Your task to perform on an android device: Search for hotels in Paris Image 0: 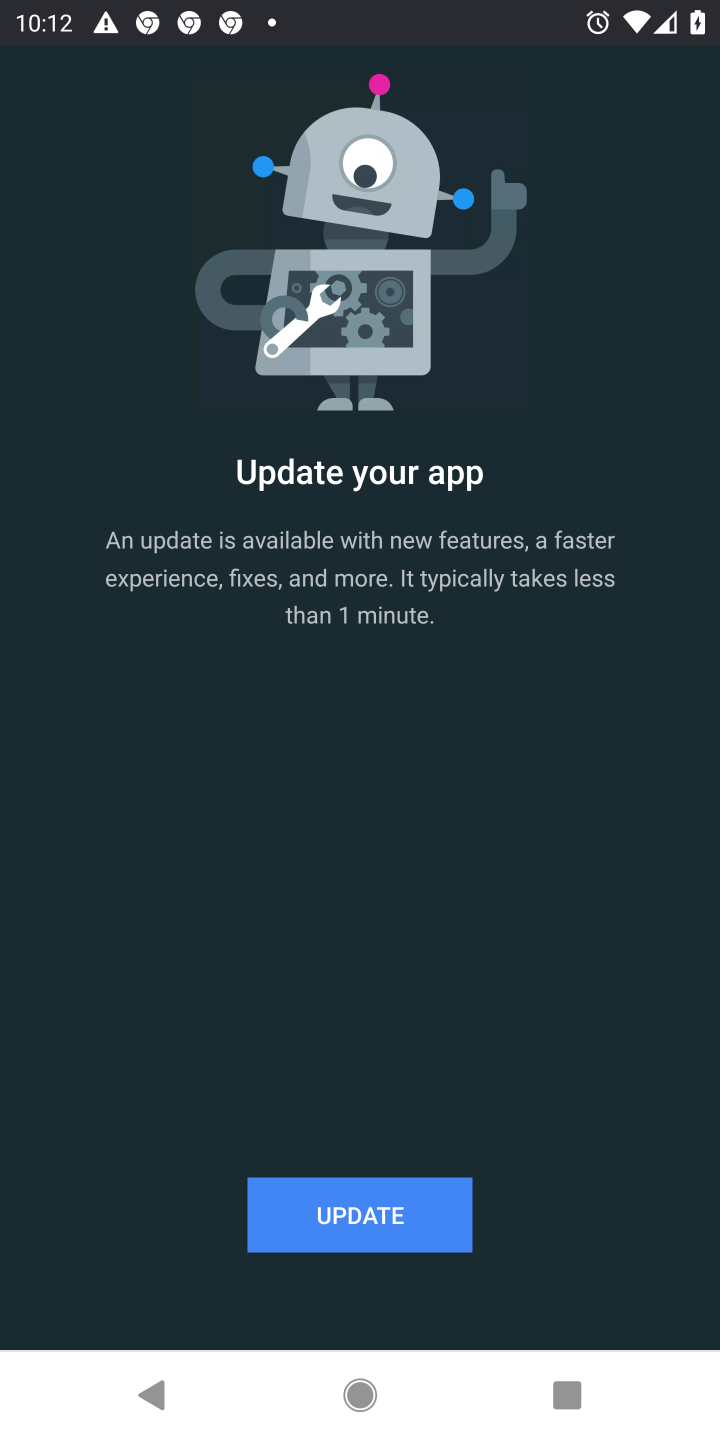
Step 0: press home button
Your task to perform on an android device: Search for hotels in Paris Image 1: 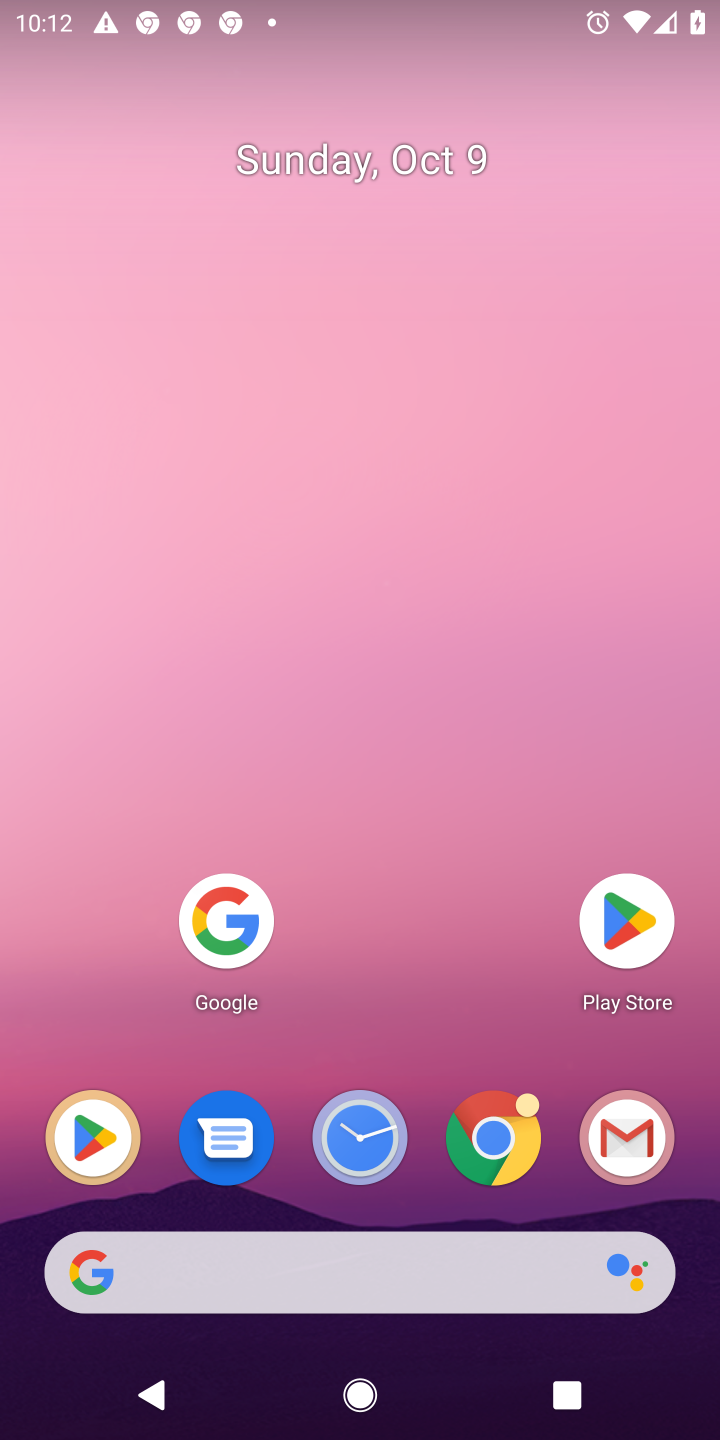
Step 1: click (218, 928)
Your task to perform on an android device: Search for hotels in Paris Image 2: 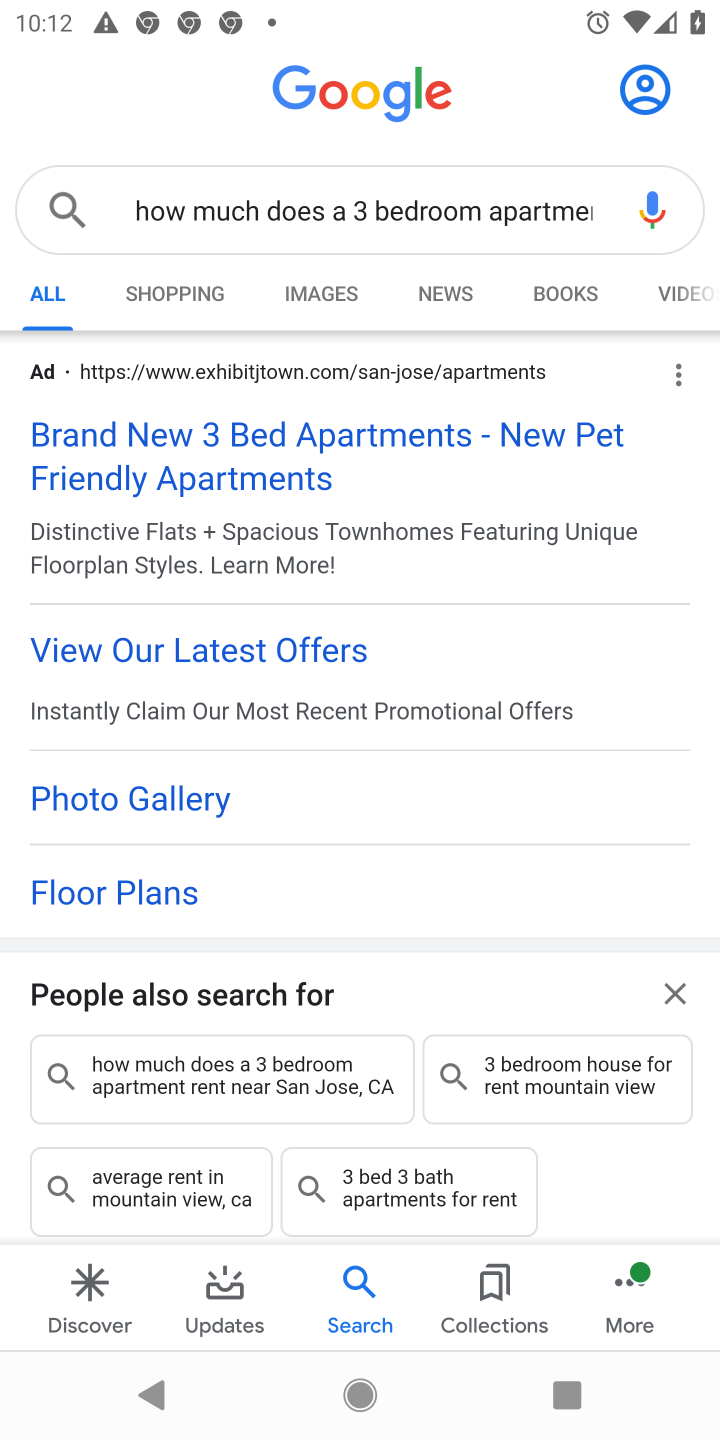
Step 2: click (337, 202)
Your task to perform on an android device: Search for hotels in Paris Image 3: 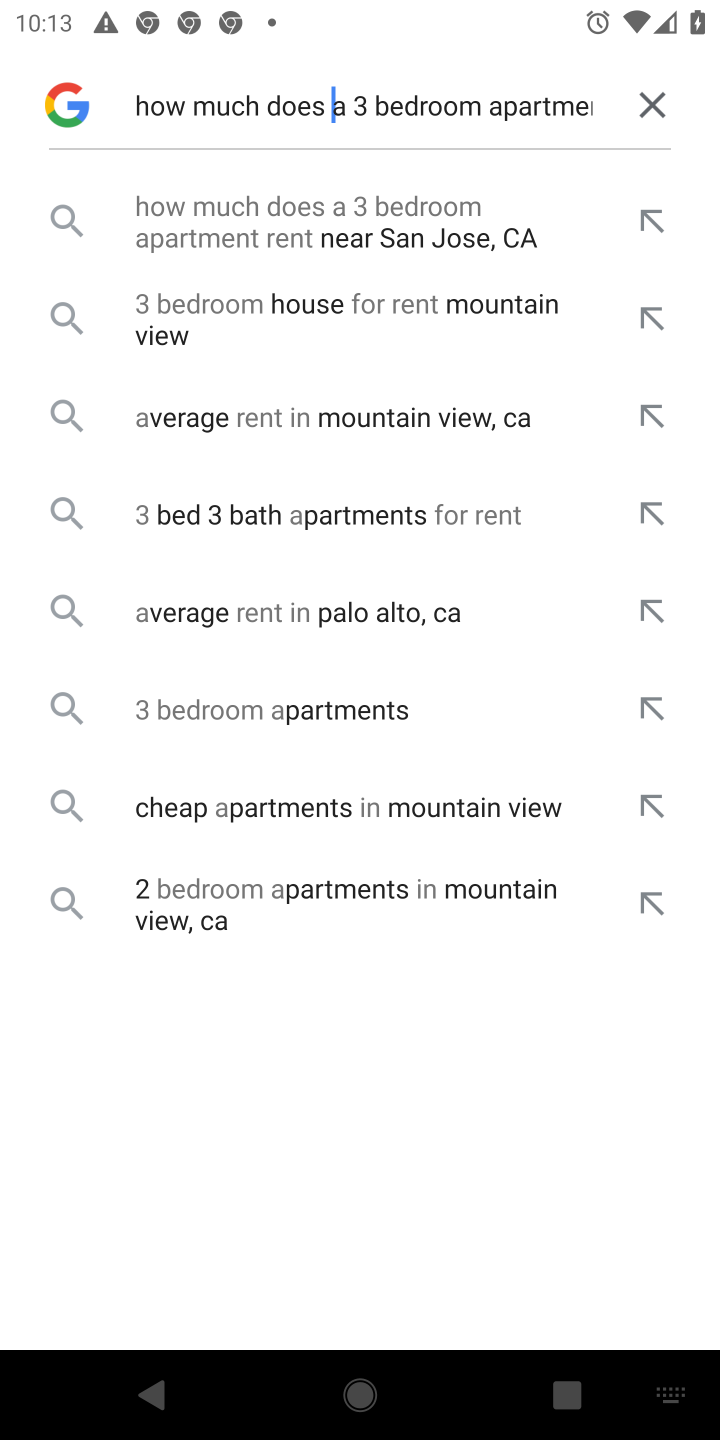
Step 3: click (661, 95)
Your task to perform on an android device: Search for hotels in Paris Image 4: 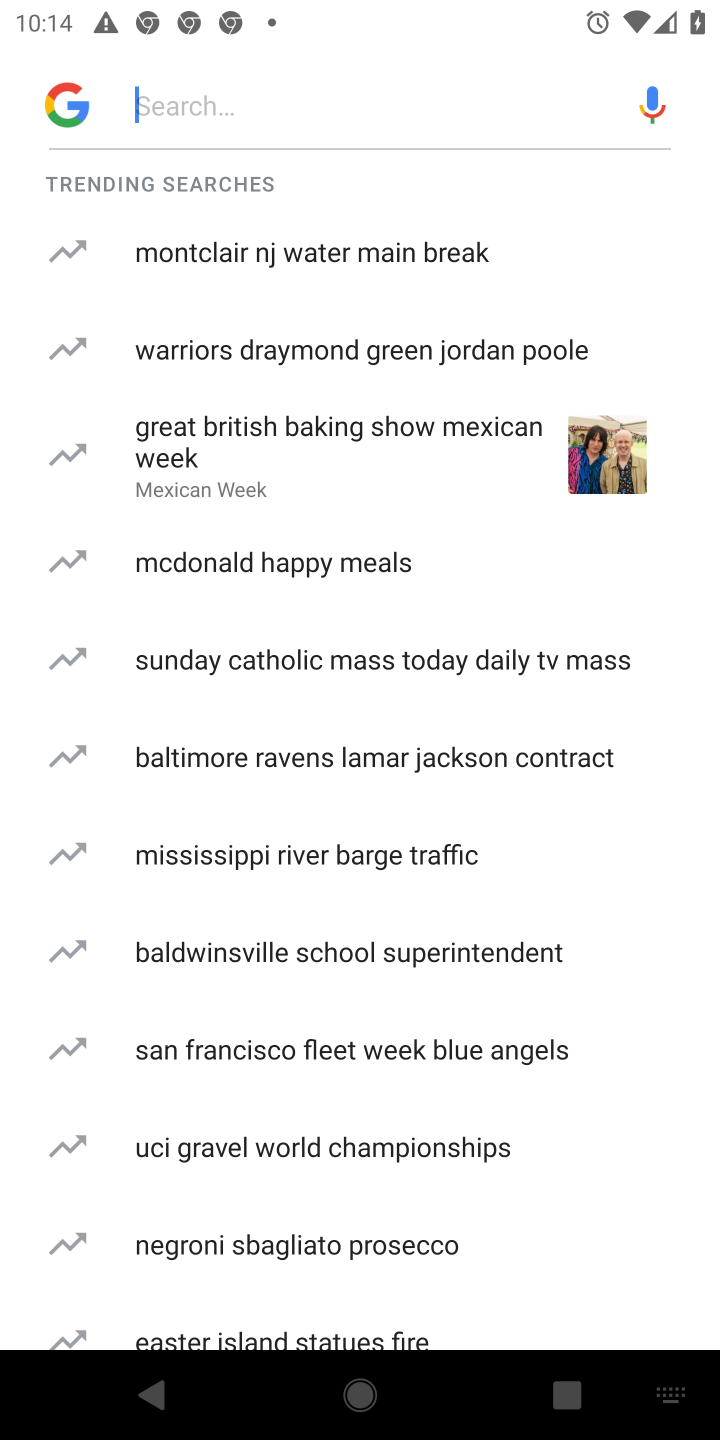
Step 4: click (197, 111)
Your task to perform on an android device: Search for hotels in Paris Image 5: 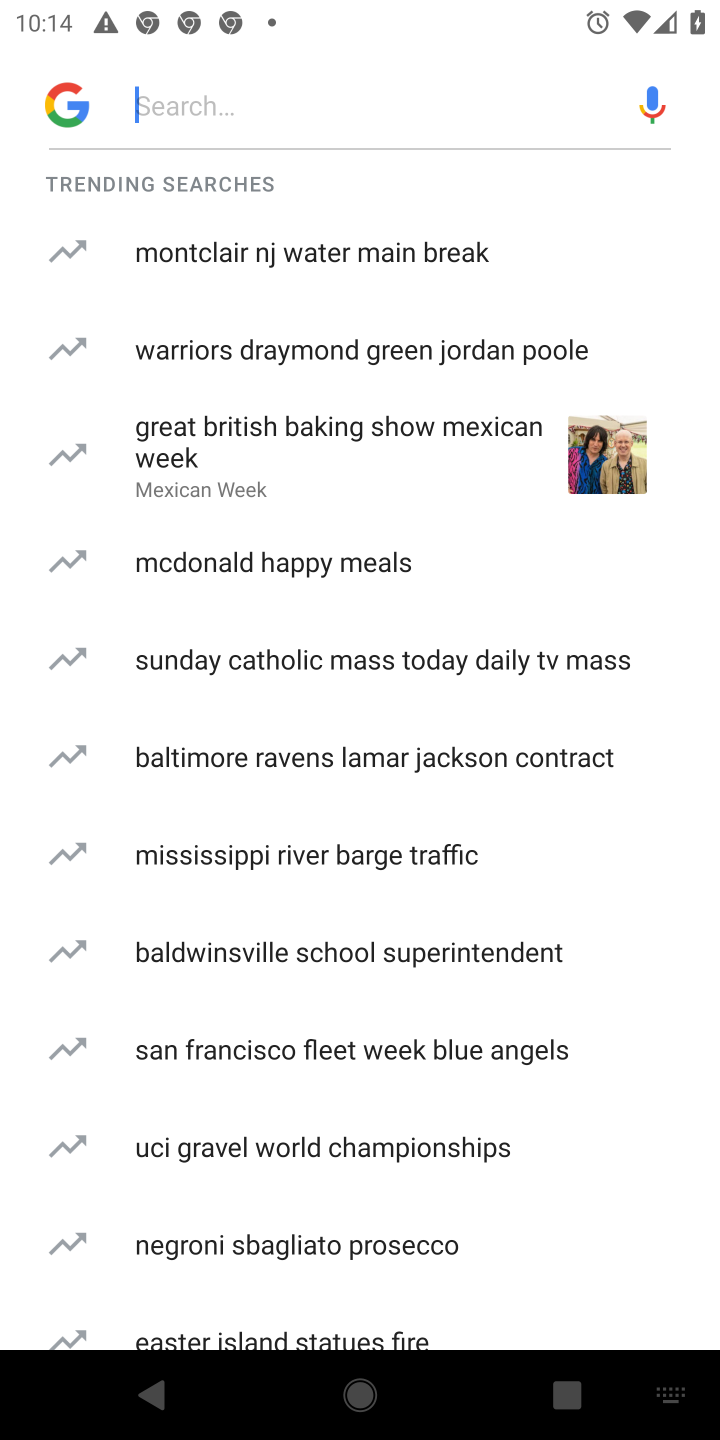
Step 5: type "Search for hotels in Paris "
Your task to perform on an android device: Search for hotels in Paris Image 6: 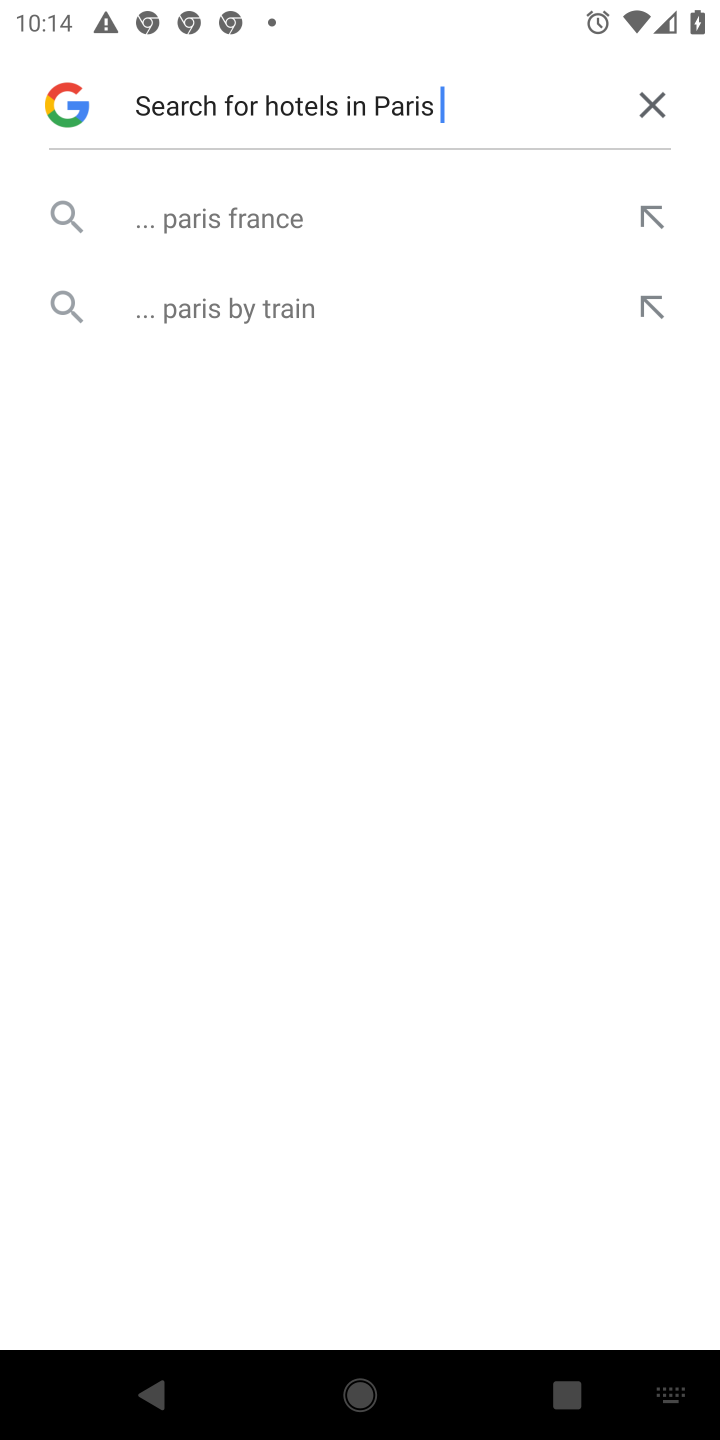
Step 6: click (193, 237)
Your task to perform on an android device: Search for hotels in Paris Image 7: 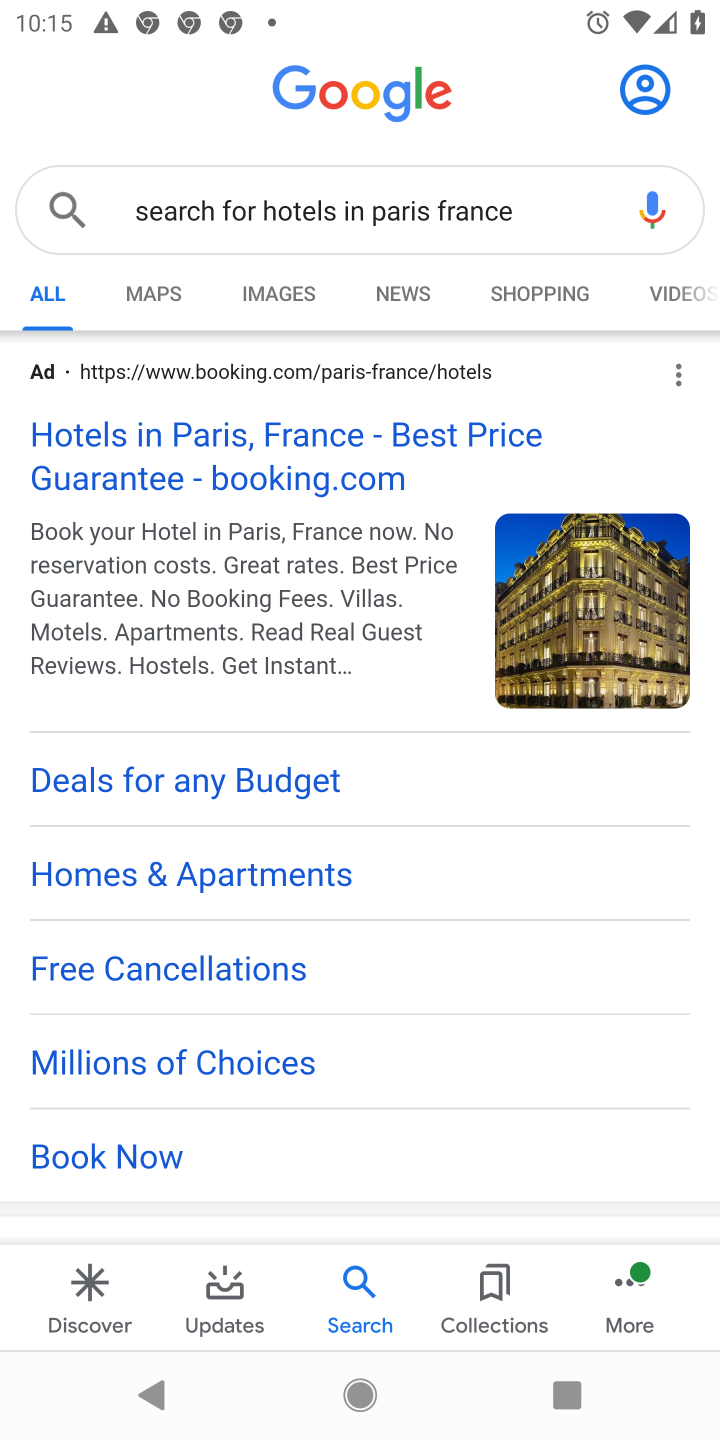
Step 7: click (349, 430)
Your task to perform on an android device: Search for hotels in Paris Image 8: 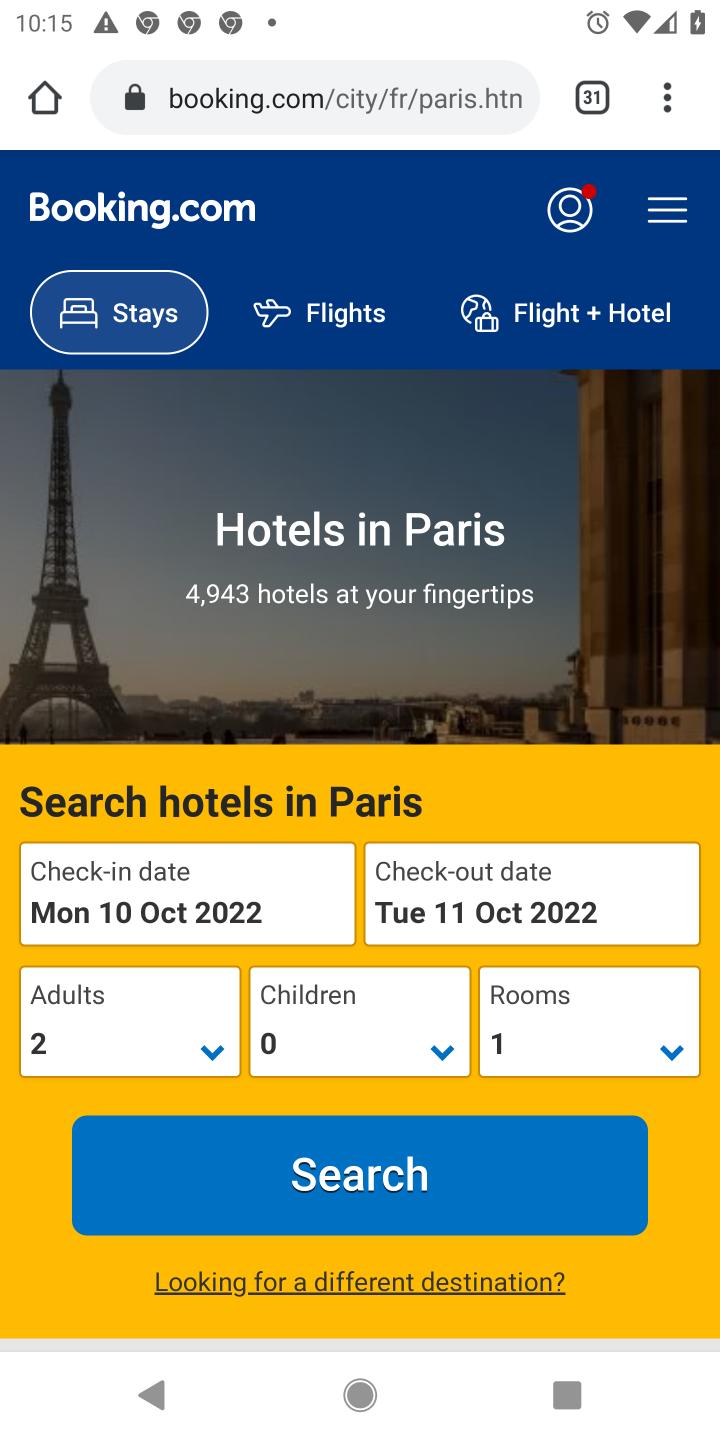
Step 8: click (406, 1184)
Your task to perform on an android device: Search for hotels in Paris Image 9: 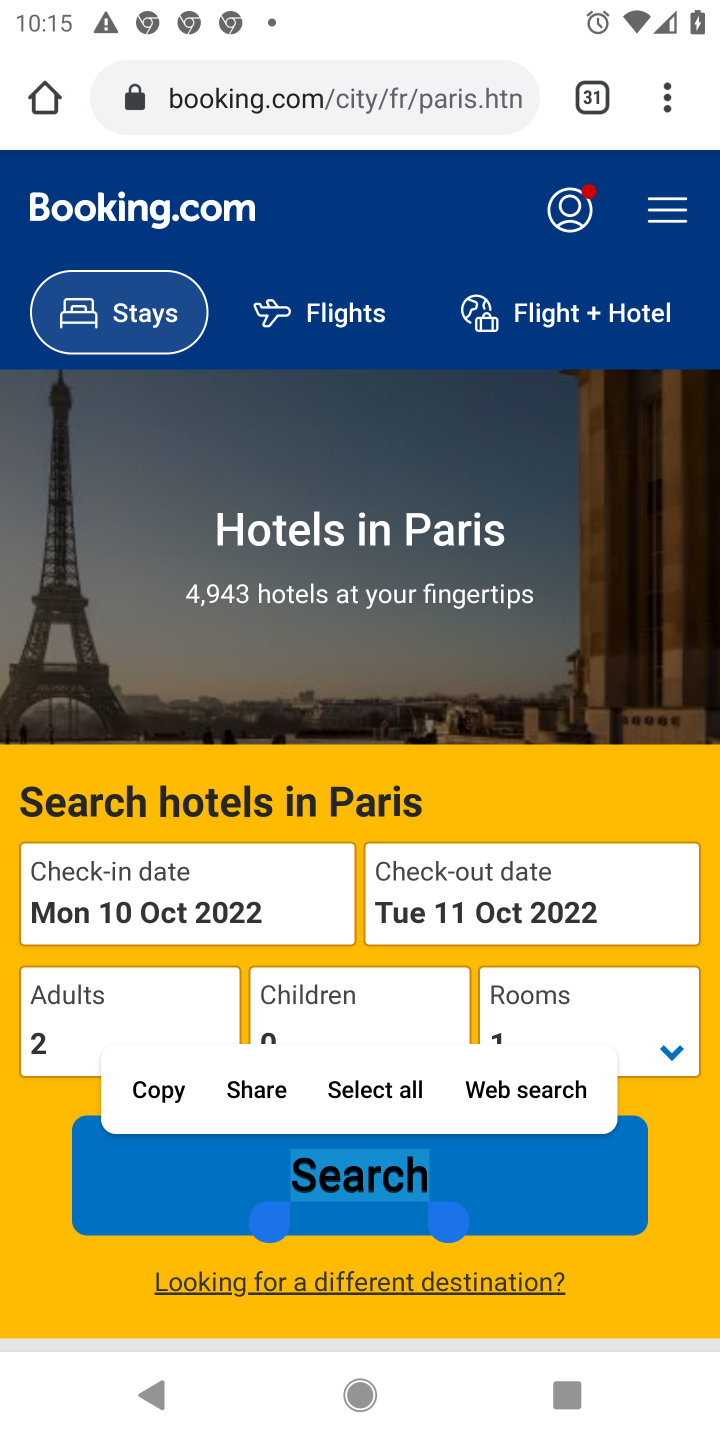
Step 9: click (550, 1193)
Your task to perform on an android device: Search for hotels in Paris Image 10: 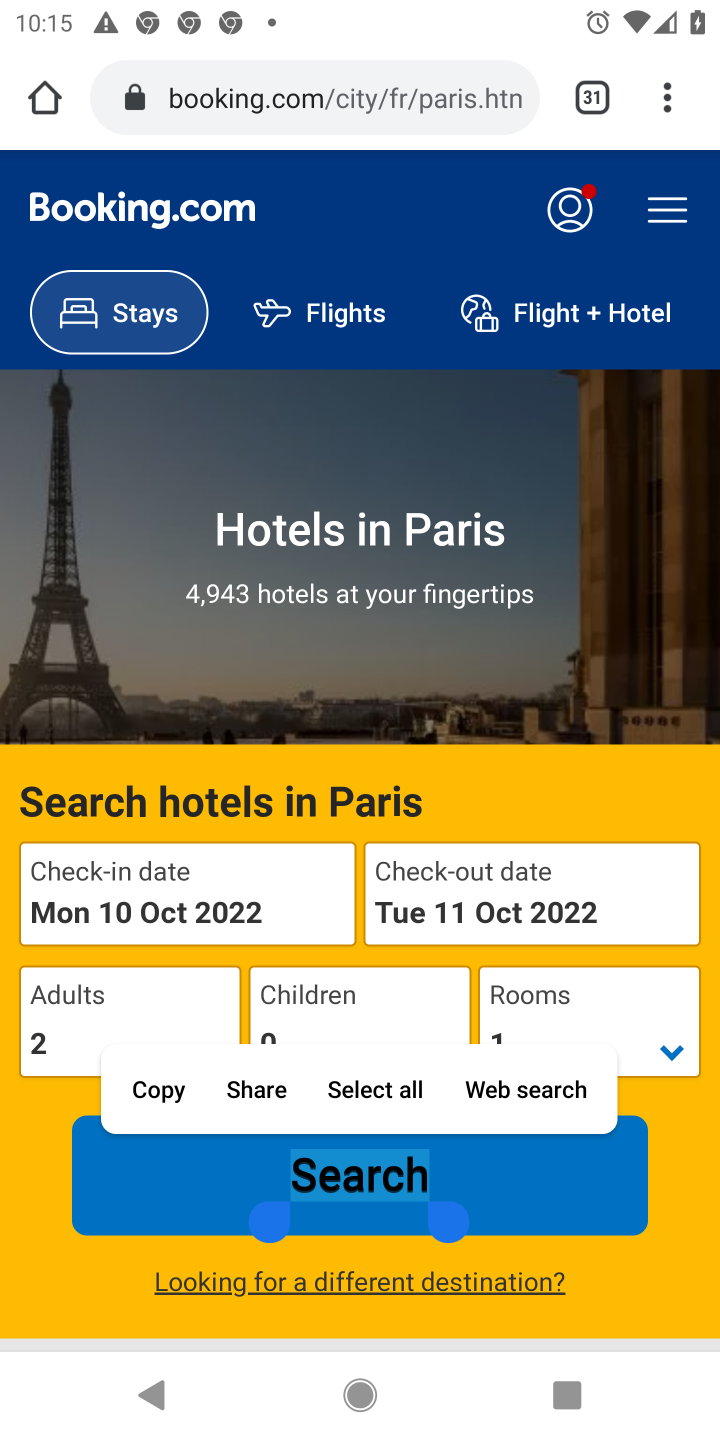
Step 10: click (536, 1193)
Your task to perform on an android device: Search for hotels in Paris Image 11: 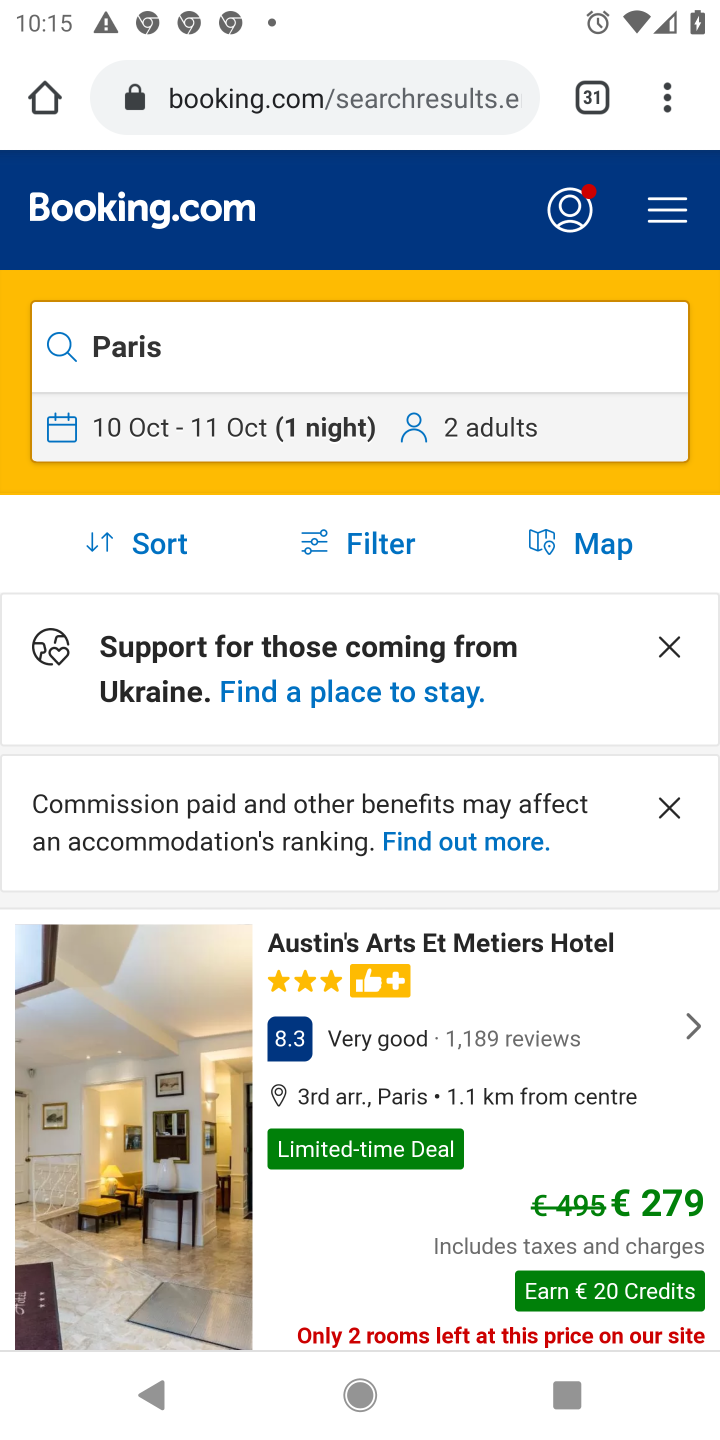
Step 11: task complete